Your task to perform on an android device: change your default location settings in chrome Image 0: 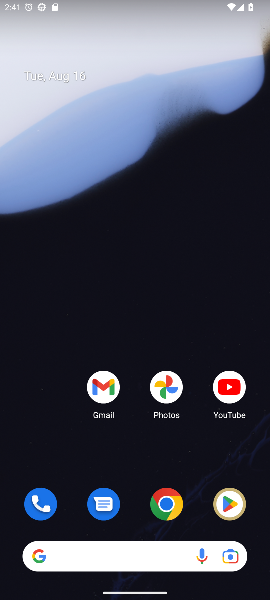
Step 0: click (166, 503)
Your task to perform on an android device: change your default location settings in chrome Image 1: 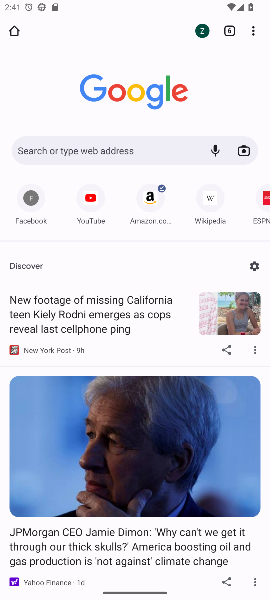
Step 1: click (252, 29)
Your task to perform on an android device: change your default location settings in chrome Image 2: 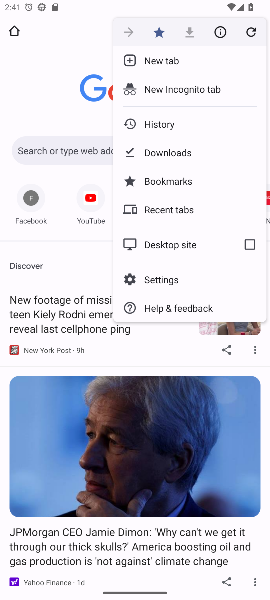
Step 2: click (167, 279)
Your task to perform on an android device: change your default location settings in chrome Image 3: 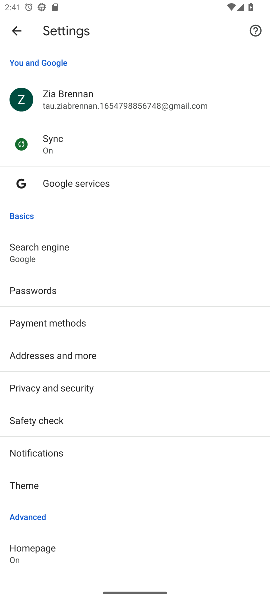
Step 3: drag from (159, 482) to (159, 188)
Your task to perform on an android device: change your default location settings in chrome Image 4: 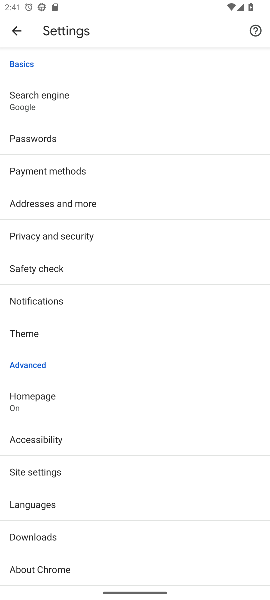
Step 4: click (36, 469)
Your task to perform on an android device: change your default location settings in chrome Image 5: 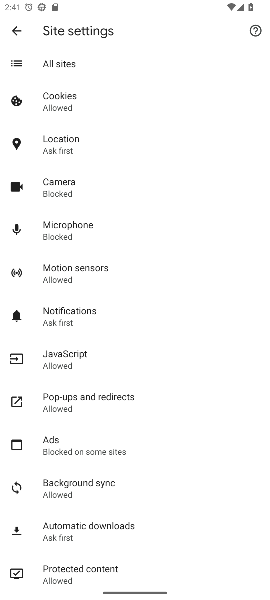
Step 5: click (56, 139)
Your task to perform on an android device: change your default location settings in chrome Image 6: 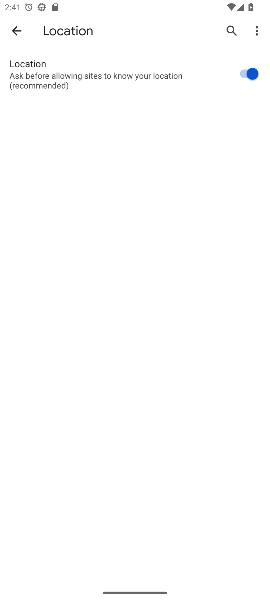
Step 6: click (246, 70)
Your task to perform on an android device: change your default location settings in chrome Image 7: 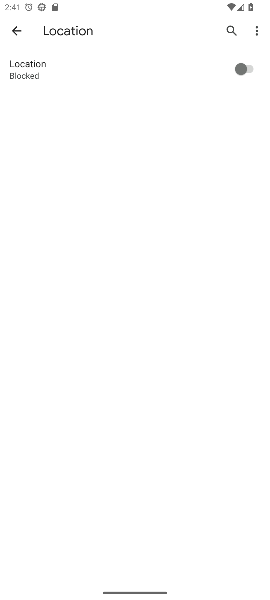
Step 7: task complete